Your task to perform on an android device: Open the phone app and click the voicemail tab. Image 0: 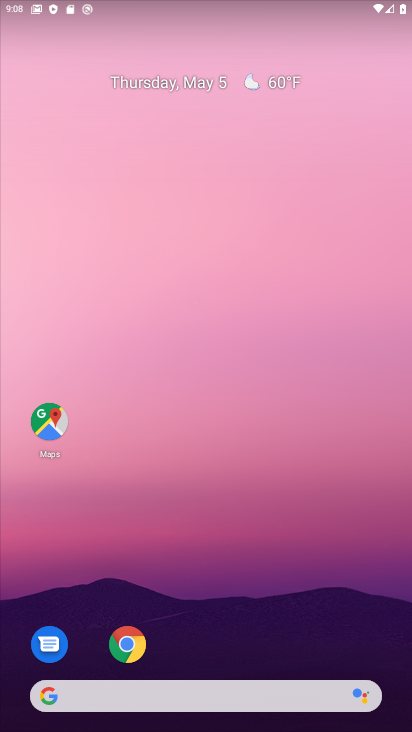
Step 0: drag from (354, 602) to (348, 48)
Your task to perform on an android device: Open the phone app and click the voicemail tab. Image 1: 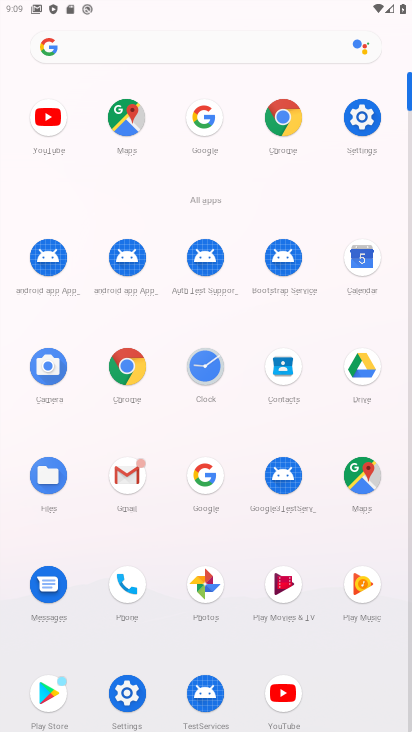
Step 1: click (124, 590)
Your task to perform on an android device: Open the phone app and click the voicemail tab. Image 2: 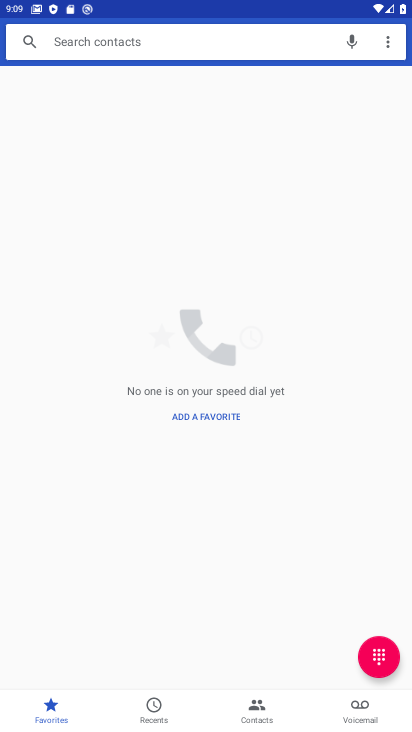
Step 2: click (352, 719)
Your task to perform on an android device: Open the phone app and click the voicemail tab. Image 3: 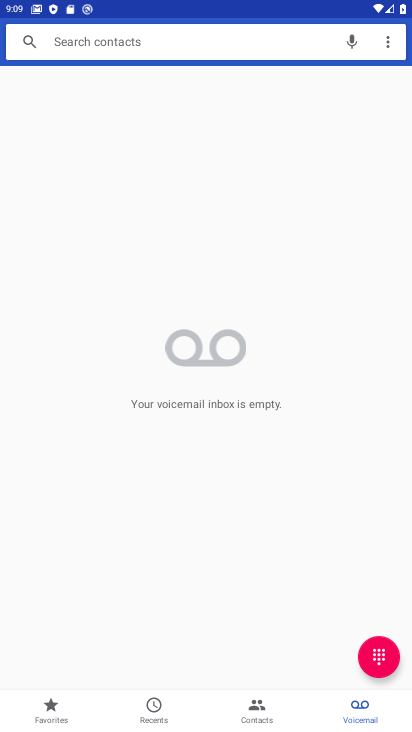
Step 3: task complete